Your task to perform on an android device: turn off location history Image 0: 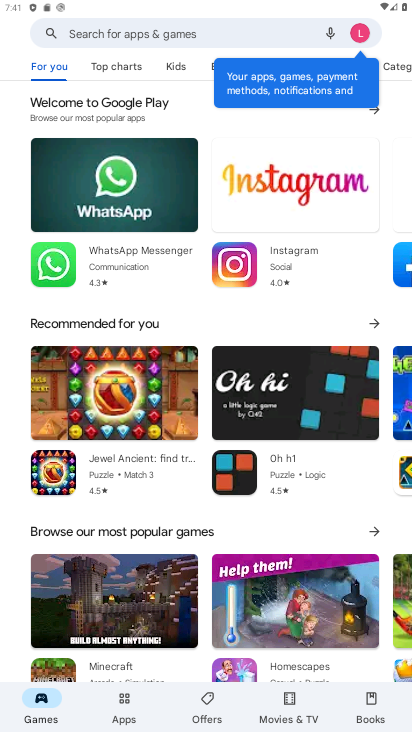
Step 0: press home button
Your task to perform on an android device: turn off location history Image 1: 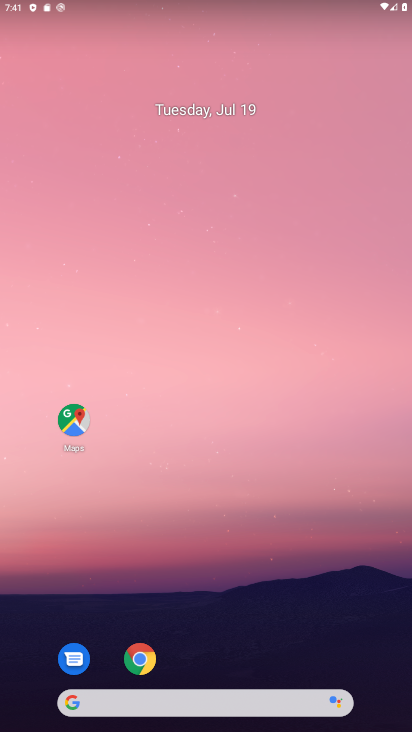
Step 1: drag from (150, 680) to (200, 333)
Your task to perform on an android device: turn off location history Image 2: 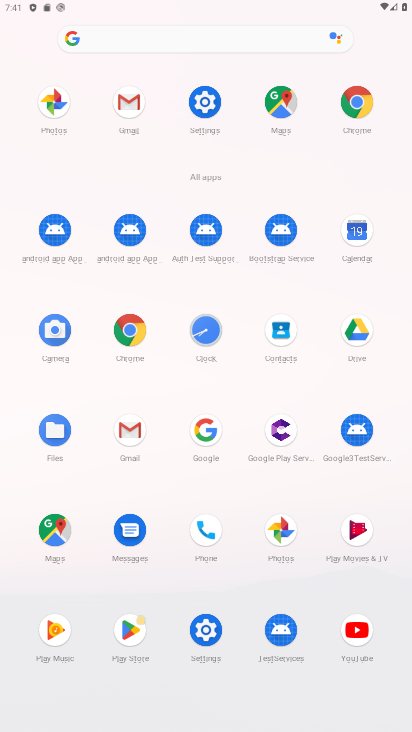
Step 2: click (204, 107)
Your task to perform on an android device: turn off location history Image 3: 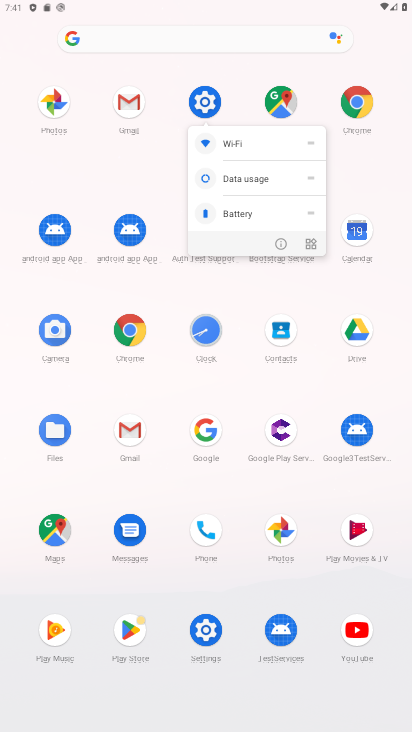
Step 3: click (202, 101)
Your task to perform on an android device: turn off location history Image 4: 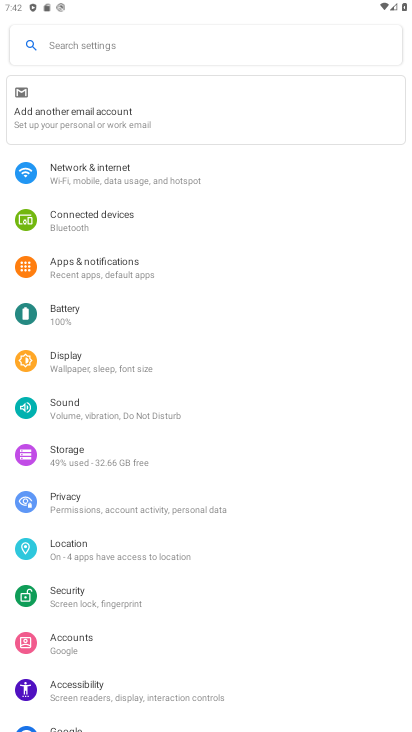
Step 4: click (94, 550)
Your task to perform on an android device: turn off location history Image 5: 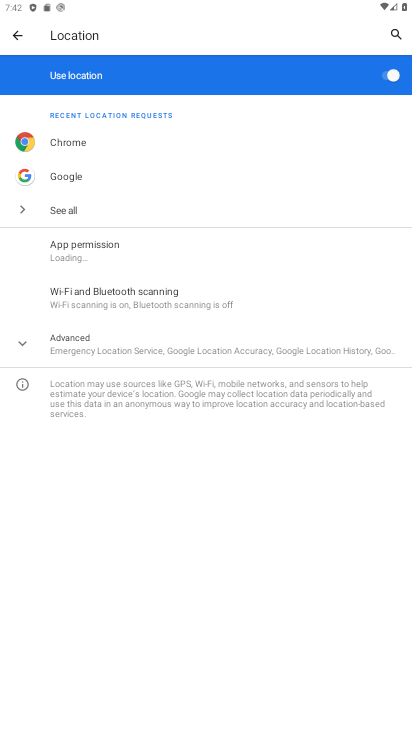
Step 5: click (108, 347)
Your task to perform on an android device: turn off location history Image 6: 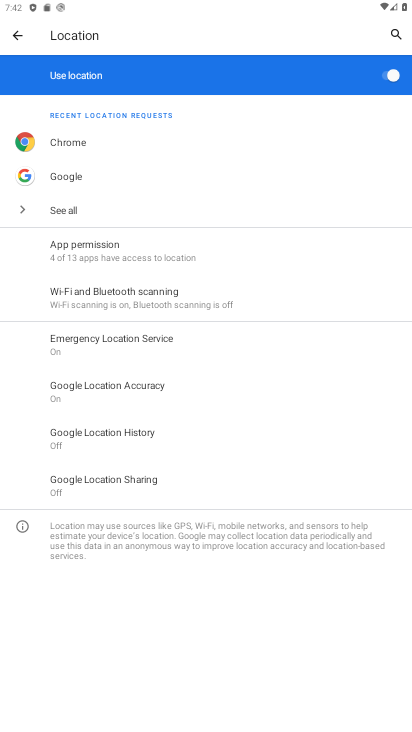
Step 6: click (80, 443)
Your task to perform on an android device: turn off location history Image 7: 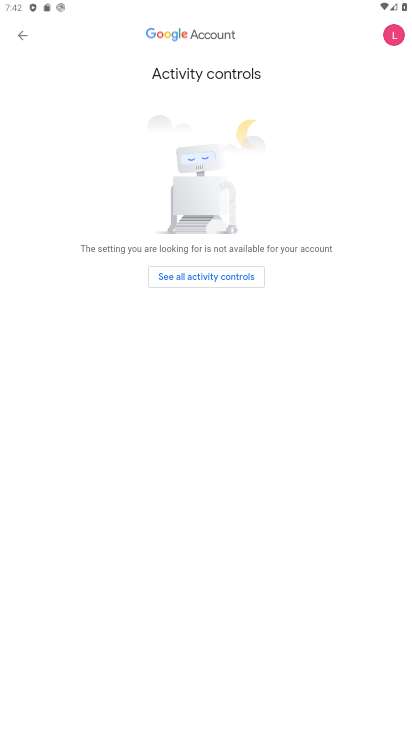
Step 7: click (236, 280)
Your task to perform on an android device: turn off location history Image 8: 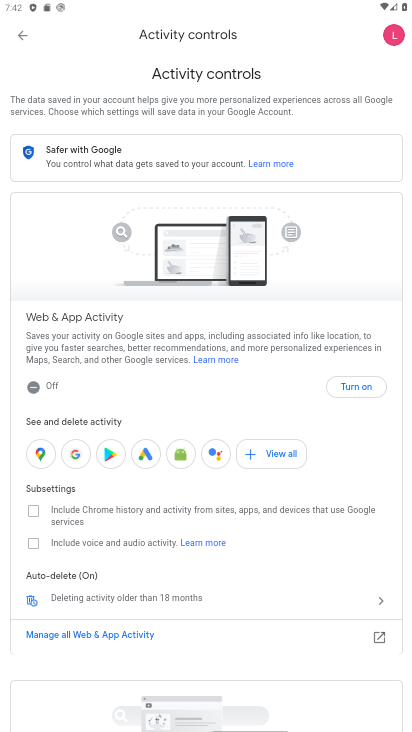
Step 8: task complete